Your task to perform on an android device: Go to Reddit.com Image 0: 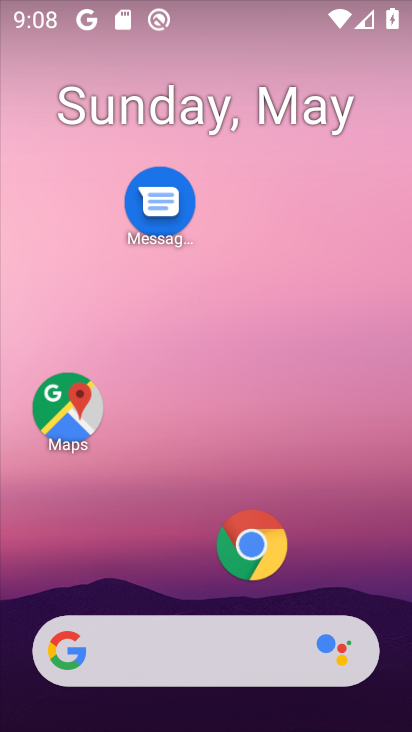
Step 0: click (283, 131)
Your task to perform on an android device: Go to Reddit.com Image 1: 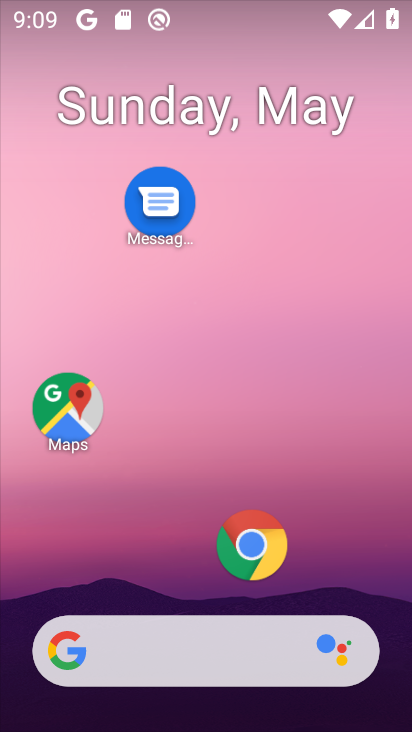
Step 1: drag from (209, 616) to (253, 19)
Your task to perform on an android device: Go to Reddit.com Image 2: 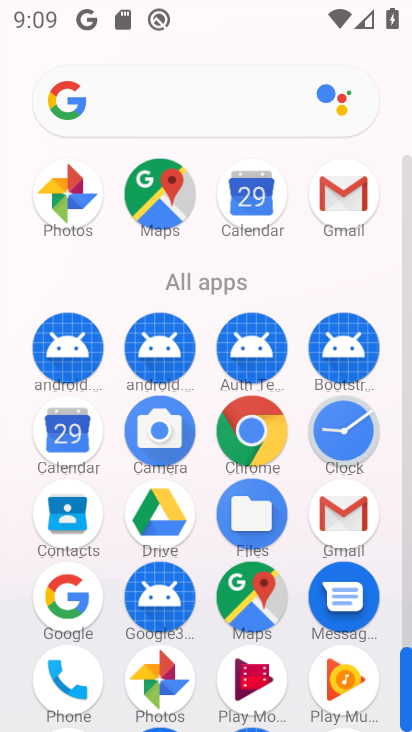
Step 2: click (81, 605)
Your task to perform on an android device: Go to Reddit.com Image 3: 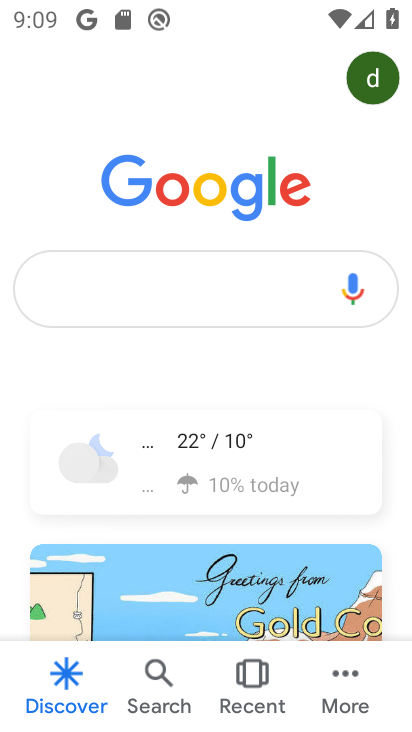
Step 3: click (256, 290)
Your task to perform on an android device: Go to Reddit.com Image 4: 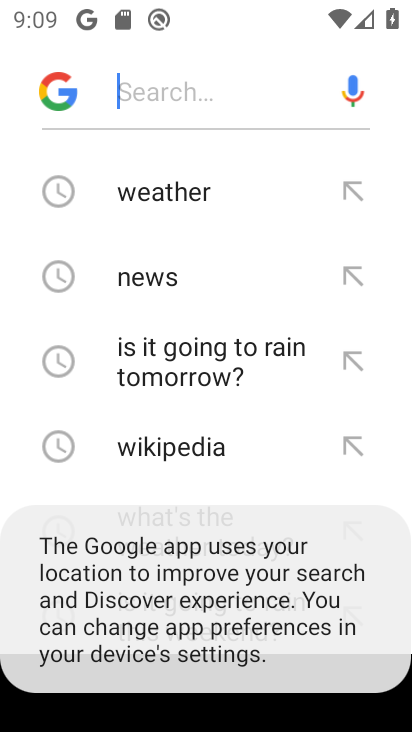
Step 4: drag from (207, 450) to (222, 116)
Your task to perform on an android device: Go to Reddit.com Image 5: 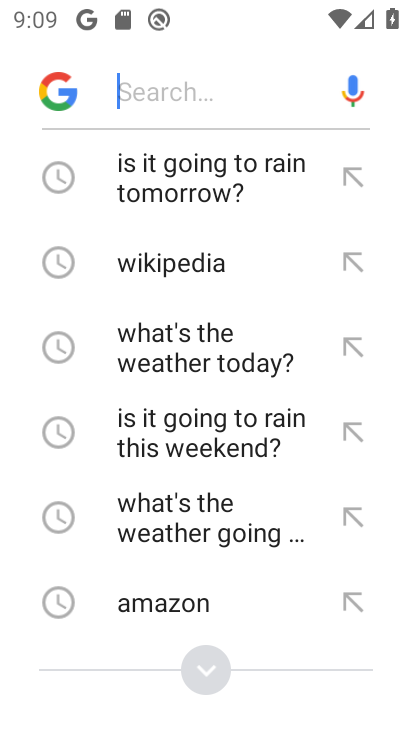
Step 5: drag from (222, 444) to (275, 112)
Your task to perform on an android device: Go to Reddit.com Image 6: 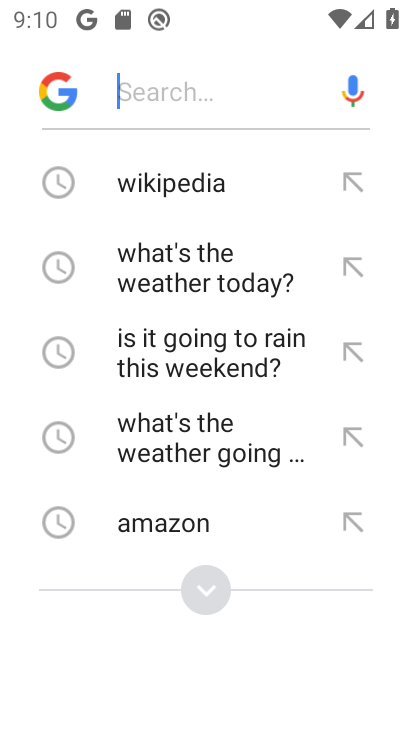
Step 6: click (180, 601)
Your task to perform on an android device: Go to Reddit.com Image 7: 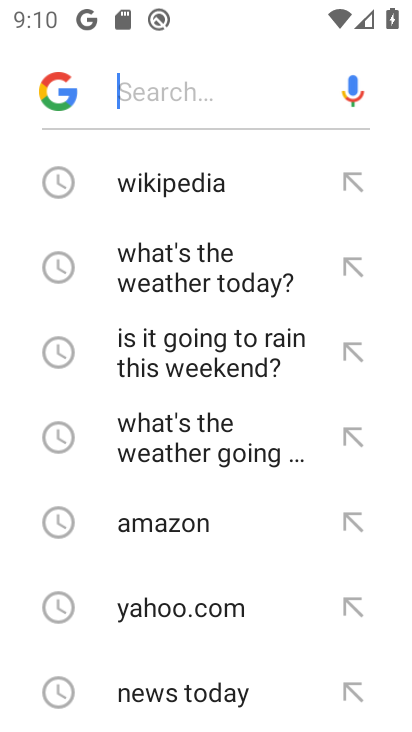
Step 7: drag from (186, 691) to (194, 288)
Your task to perform on an android device: Go to Reddit.com Image 8: 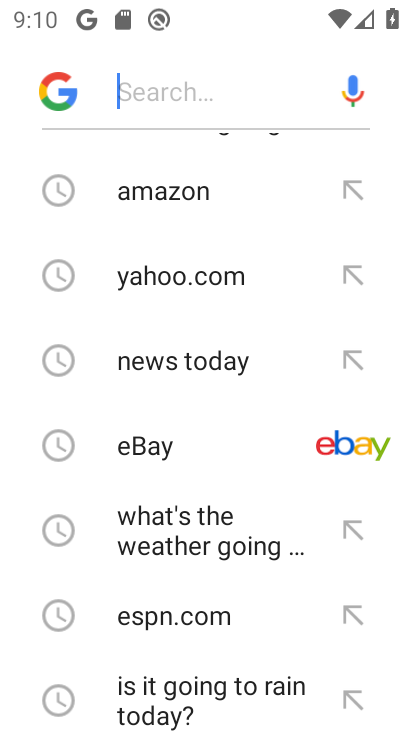
Step 8: drag from (198, 648) to (232, 316)
Your task to perform on an android device: Go to Reddit.com Image 9: 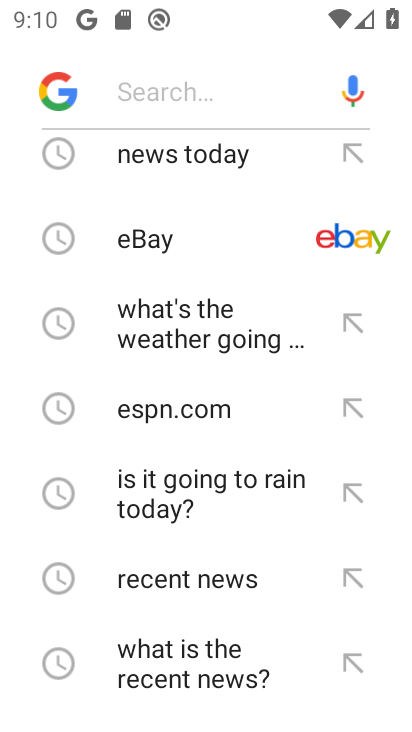
Step 9: drag from (169, 625) to (186, 369)
Your task to perform on an android device: Go to Reddit.com Image 10: 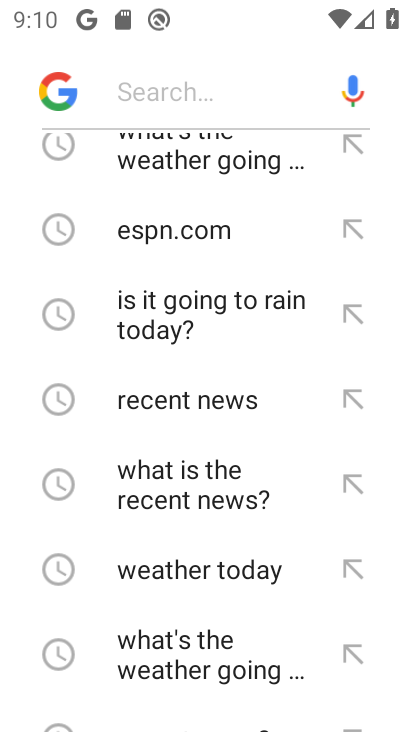
Step 10: drag from (189, 679) to (208, 425)
Your task to perform on an android device: Go to Reddit.com Image 11: 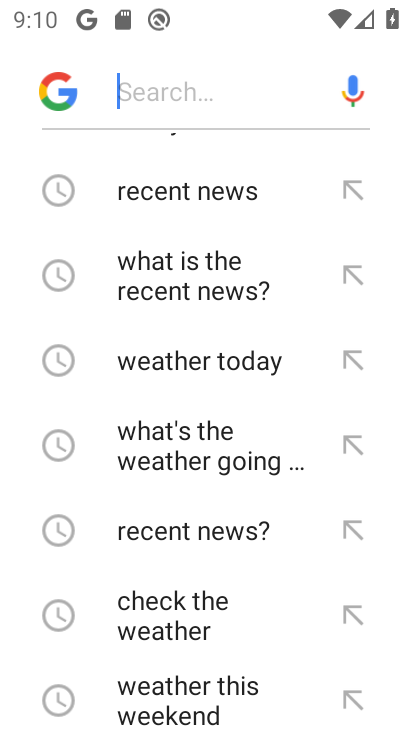
Step 11: drag from (172, 671) to (179, 199)
Your task to perform on an android device: Go to Reddit.com Image 12: 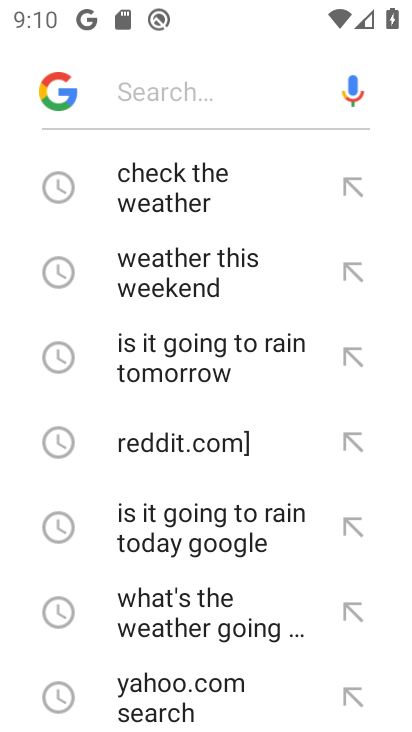
Step 12: click (211, 455)
Your task to perform on an android device: Go to Reddit.com Image 13: 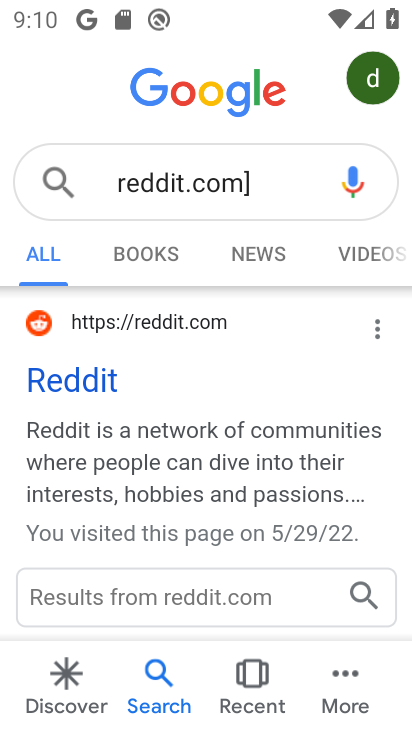
Step 13: task complete